Your task to perform on an android device: Check the news Image 0: 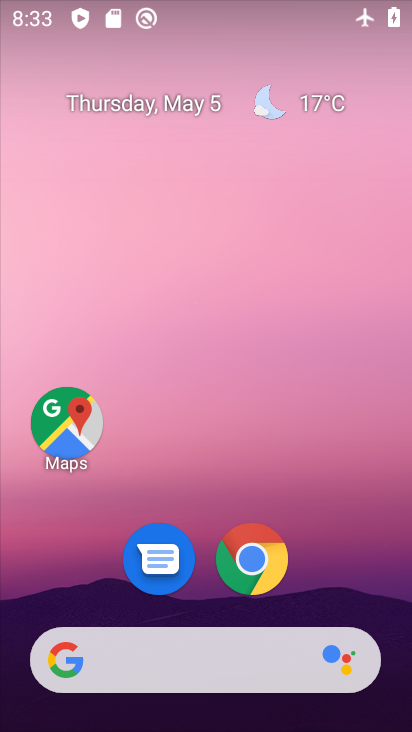
Step 0: drag from (190, 596) to (279, 32)
Your task to perform on an android device: Check the news Image 1: 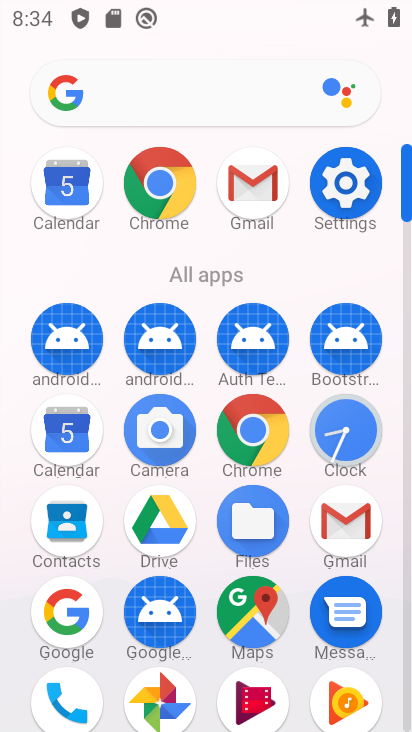
Step 1: click (153, 104)
Your task to perform on an android device: Check the news Image 2: 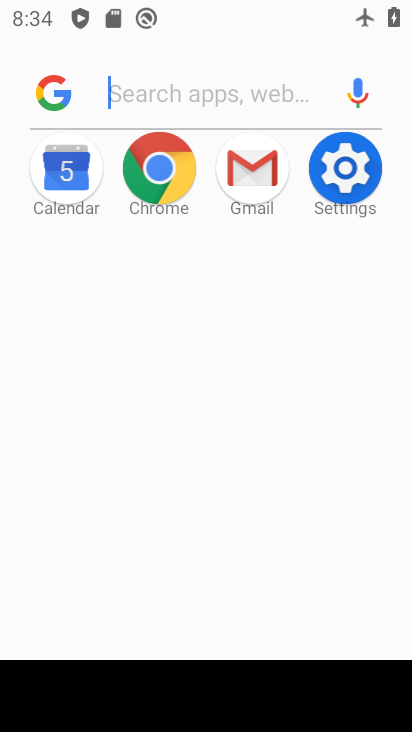
Step 2: type "news"
Your task to perform on an android device: Check the news Image 3: 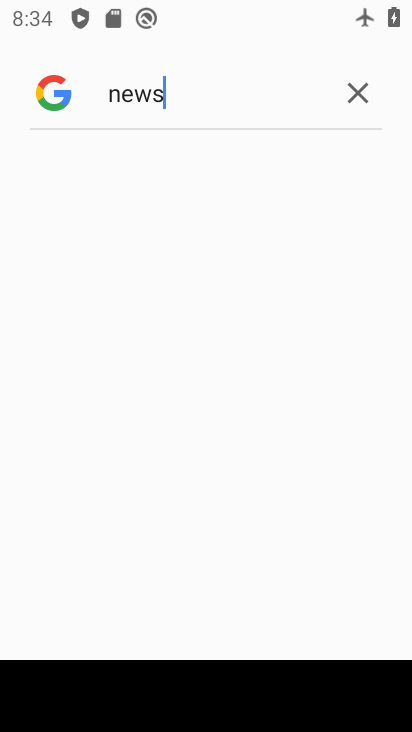
Step 3: drag from (352, 10) to (228, 560)
Your task to perform on an android device: Check the news Image 4: 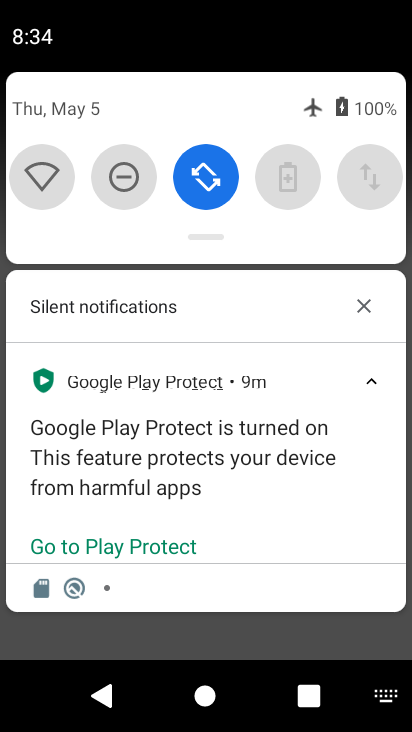
Step 4: drag from (189, 207) to (182, 690)
Your task to perform on an android device: Check the news Image 5: 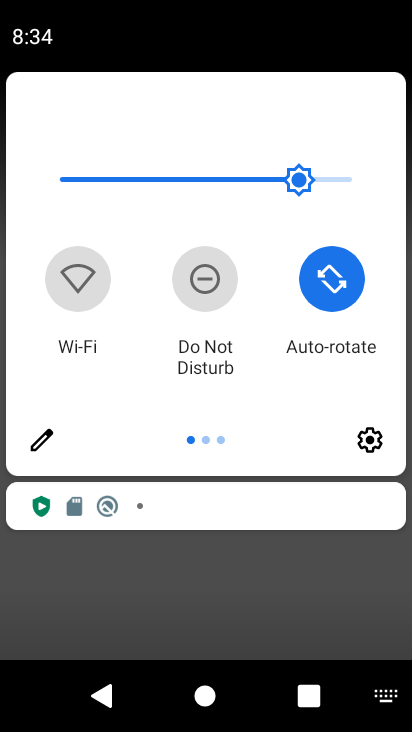
Step 5: drag from (366, 273) to (0, 225)
Your task to perform on an android device: Check the news Image 6: 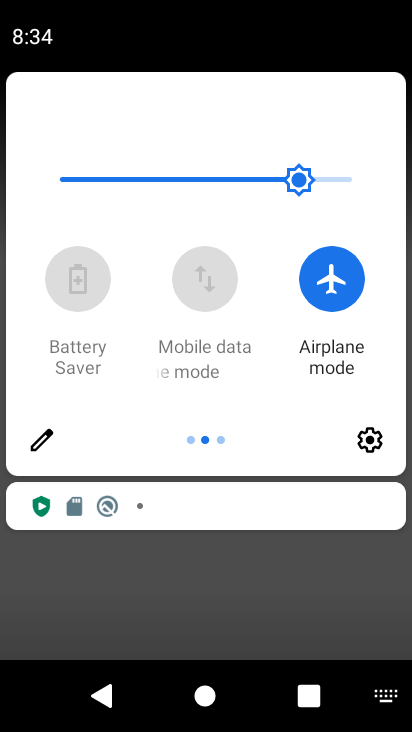
Step 6: click (342, 264)
Your task to perform on an android device: Check the news Image 7: 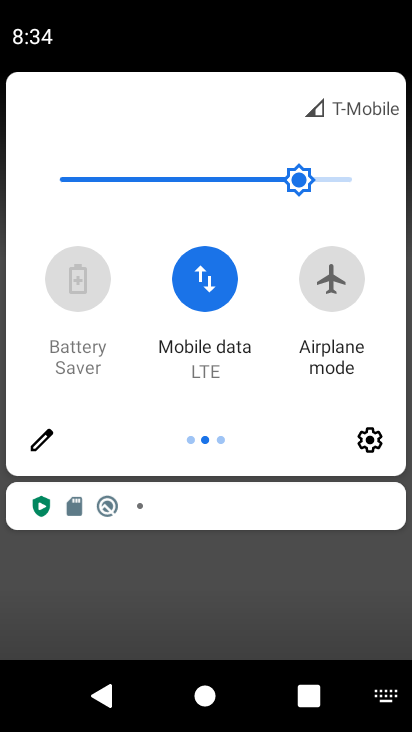
Step 7: click (161, 571)
Your task to perform on an android device: Check the news Image 8: 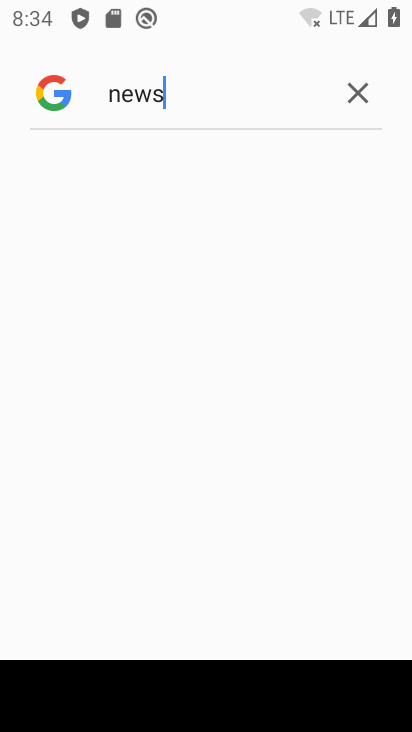
Step 8: click (216, 107)
Your task to perform on an android device: Check the news Image 9: 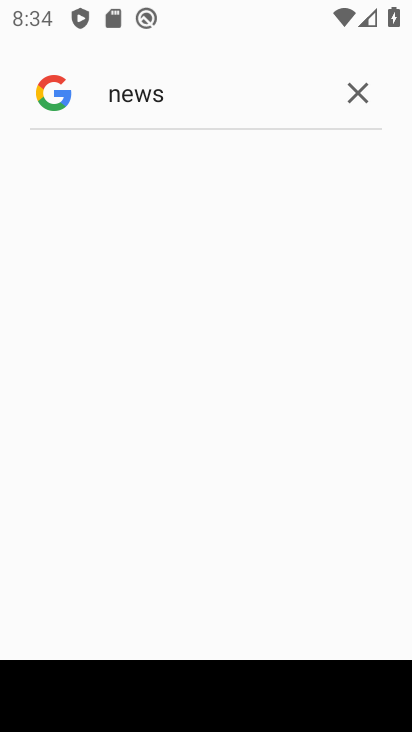
Step 9: click (366, 100)
Your task to perform on an android device: Check the news Image 10: 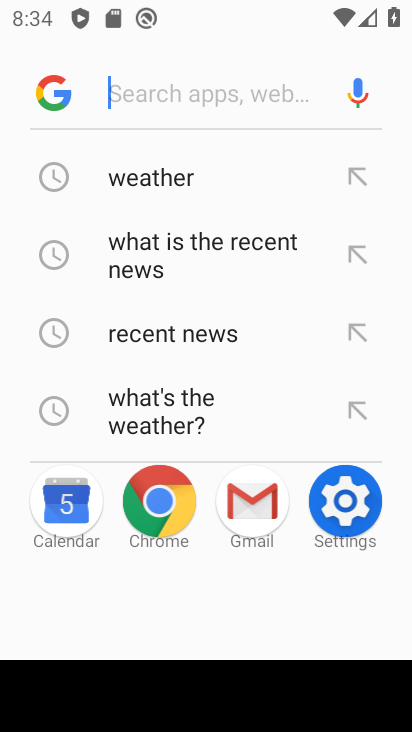
Step 10: click (162, 321)
Your task to perform on an android device: Check the news Image 11: 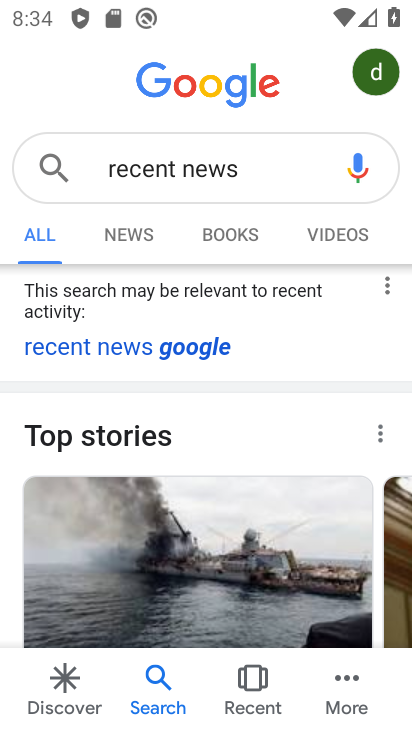
Step 11: task complete